Your task to perform on an android device: star an email in the gmail app Image 0: 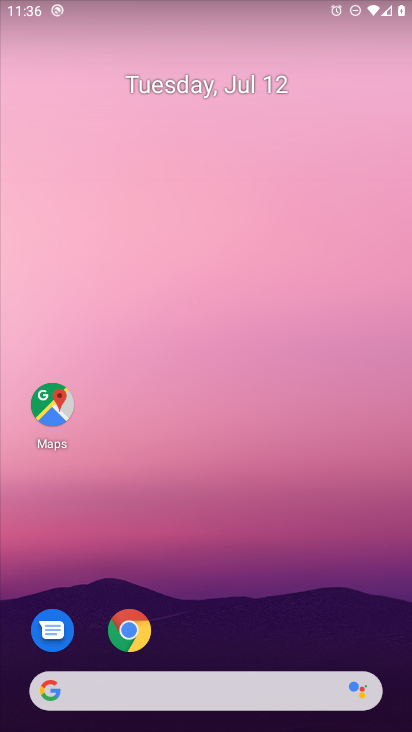
Step 0: press home button
Your task to perform on an android device: star an email in the gmail app Image 1: 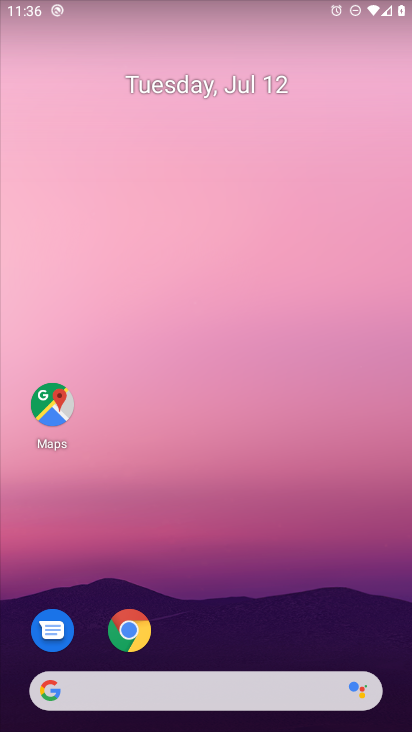
Step 1: drag from (346, 618) to (283, 135)
Your task to perform on an android device: star an email in the gmail app Image 2: 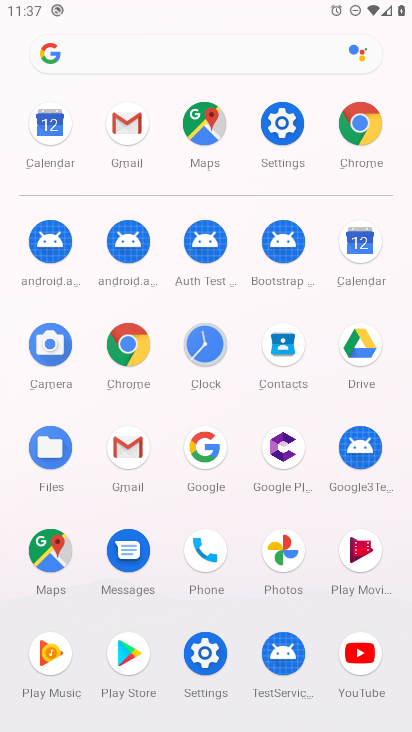
Step 2: click (133, 122)
Your task to perform on an android device: star an email in the gmail app Image 3: 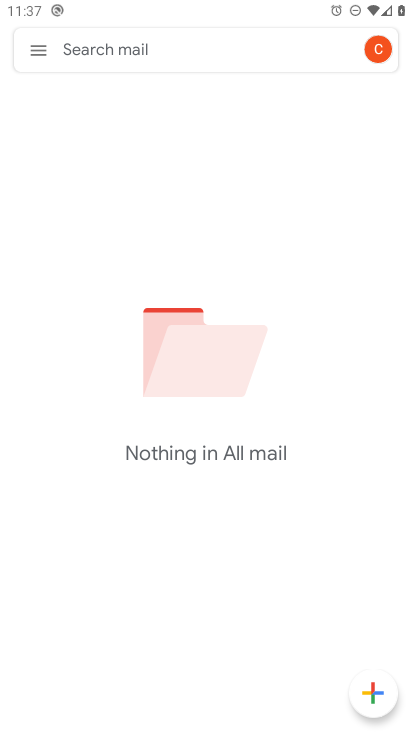
Step 3: click (26, 44)
Your task to perform on an android device: star an email in the gmail app Image 4: 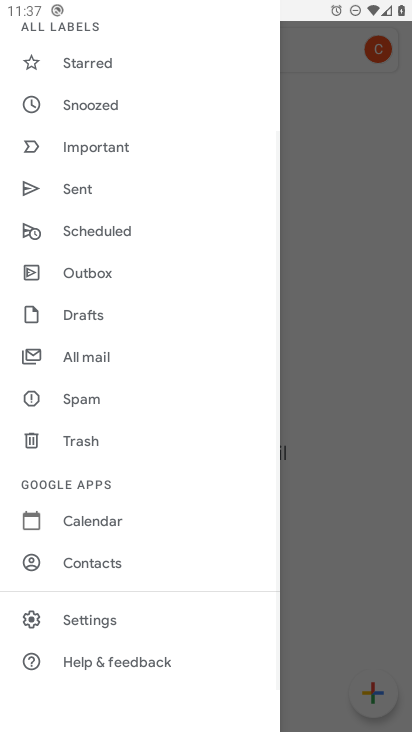
Step 4: task complete